Your task to perform on an android device: Open the gallery Image 0: 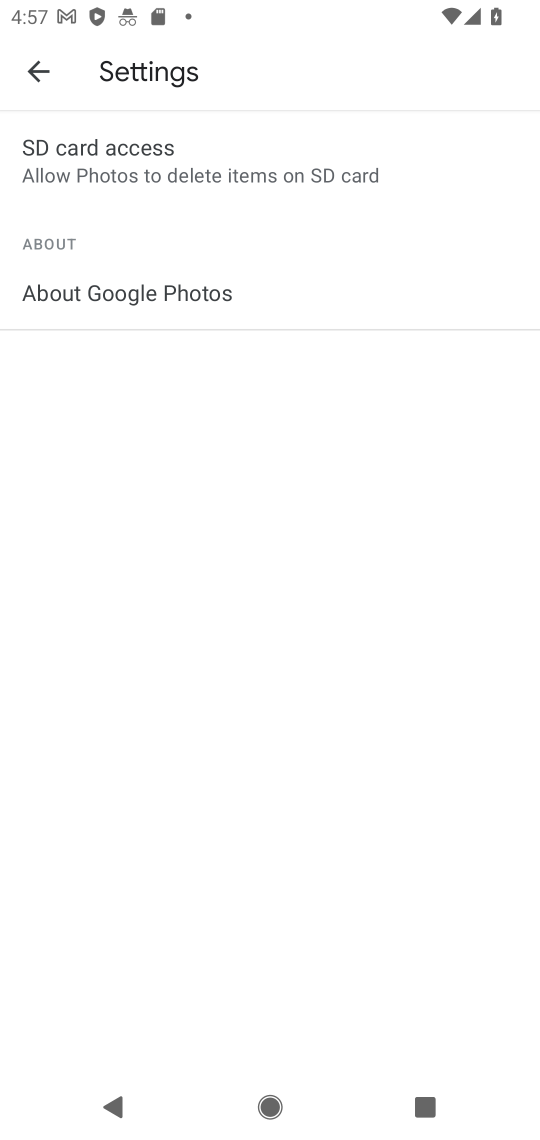
Step 0: press home button
Your task to perform on an android device: Open the gallery Image 1: 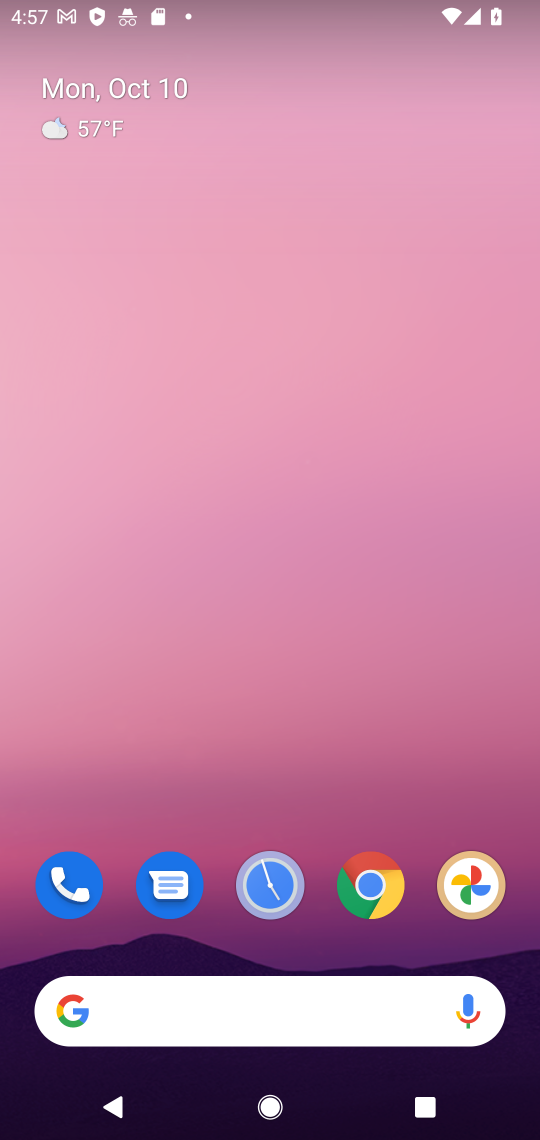
Step 1: click (476, 887)
Your task to perform on an android device: Open the gallery Image 2: 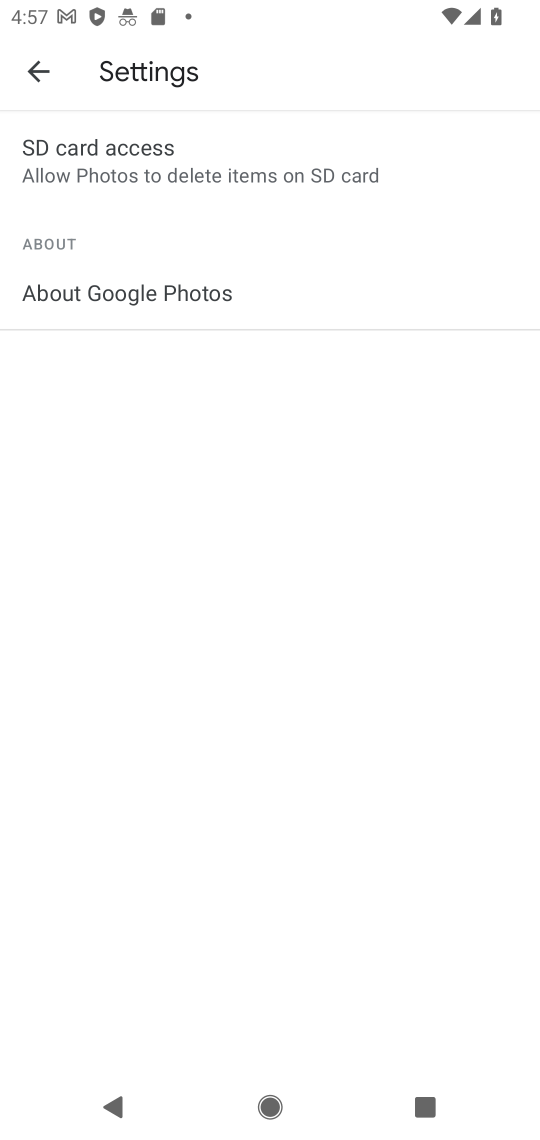
Step 2: click (28, 59)
Your task to perform on an android device: Open the gallery Image 3: 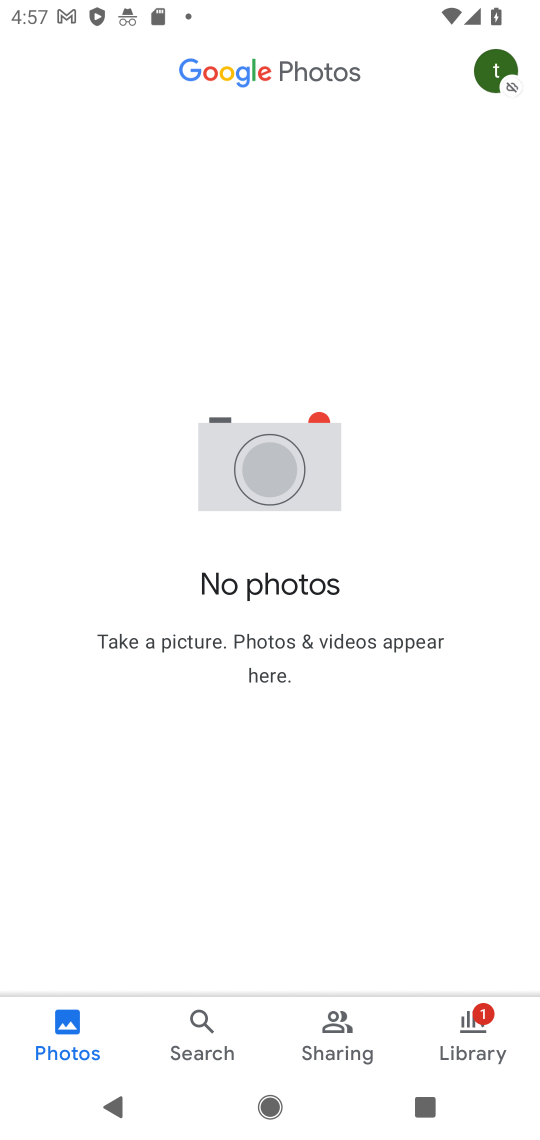
Step 3: task complete